Your task to perform on an android device: What's the weather? Image 0: 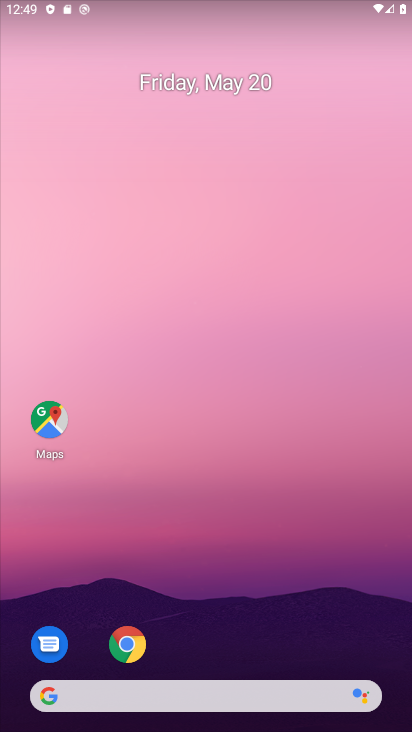
Step 0: click (371, 72)
Your task to perform on an android device: What's the weather? Image 1: 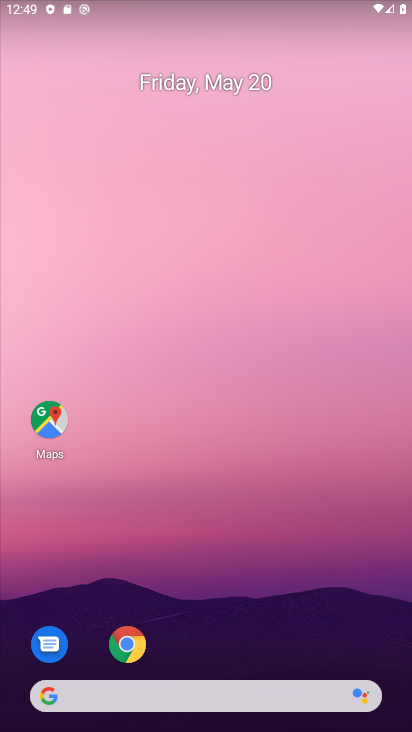
Step 1: press home button
Your task to perform on an android device: What's the weather? Image 2: 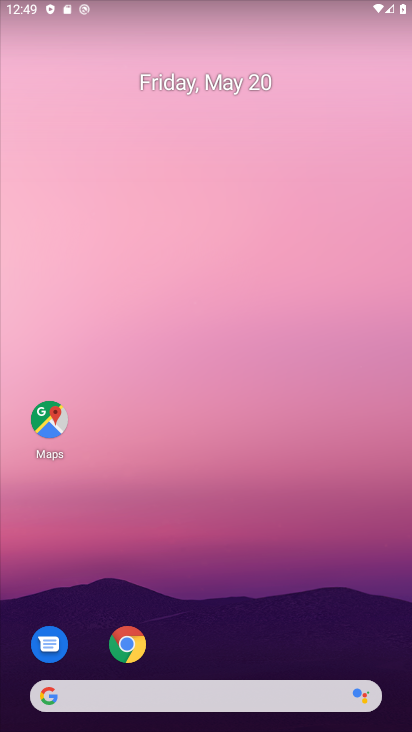
Step 2: drag from (256, 598) to (283, 89)
Your task to perform on an android device: What's the weather? Image 3: 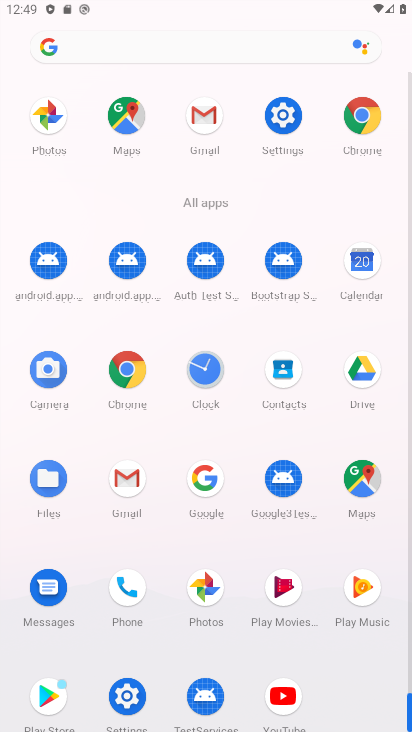
Step 3: click (207, 485)
Your task to perform on an android device: What's the weather? Image 4: 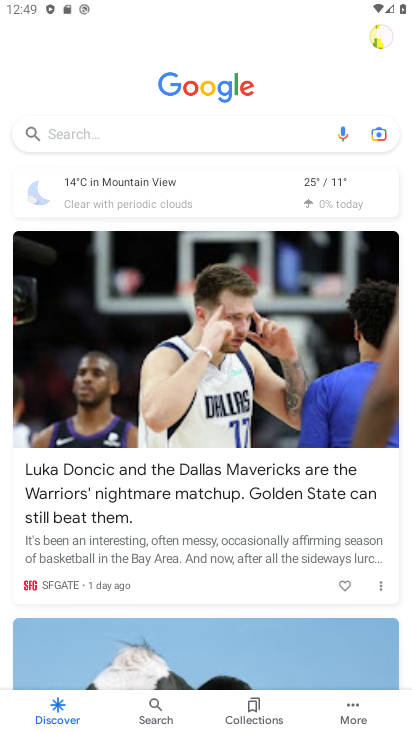
Step 4: click (167, 189)
Your task to perform on an android device: What's the weather? Image 5: 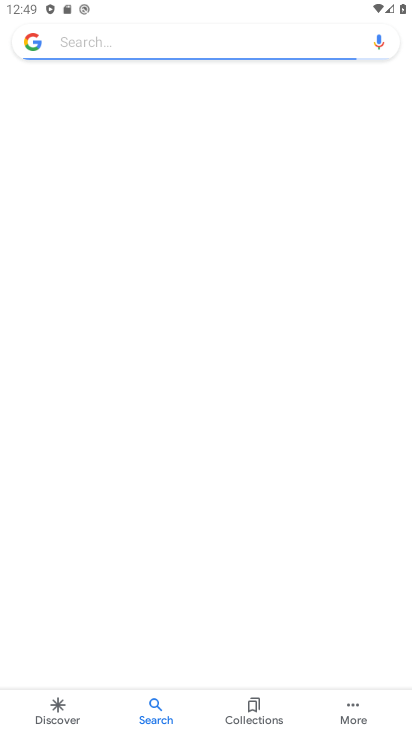
Step 5: task complete